Your task to perform on an android device: What's on my calendar tomorrow? Image 0: 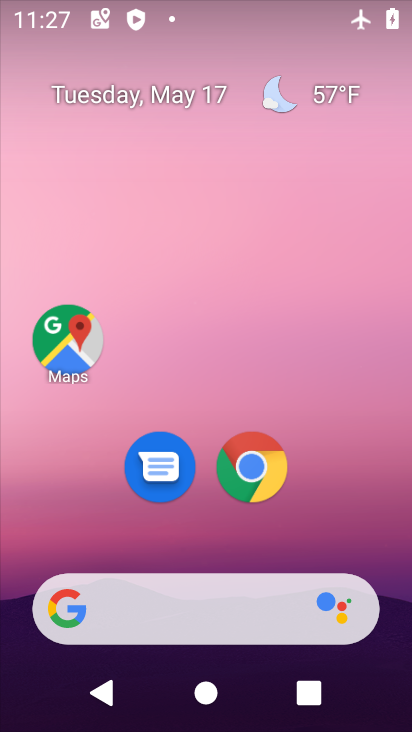
Step 0: drag from (217, 636) to (343, 155)
Your task to perform on an android device: What's on my calendar tomorrow? Image 1: 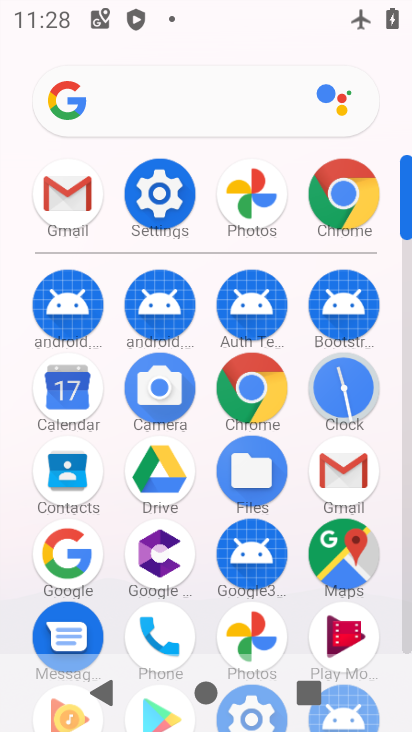
Step 1: click (63, 399)
Your task to perform on an android device: What's on my calendar tomorrow? Image 2: 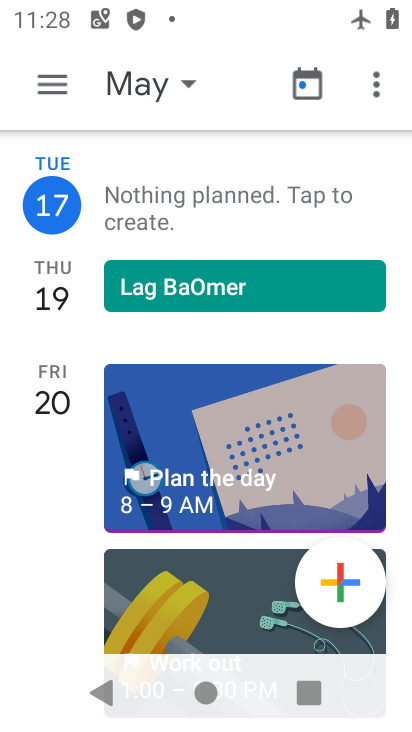
Step 2: click (68, 84)
Your task to perform on an android device: What's on my calendar tomorrow? Image 3: 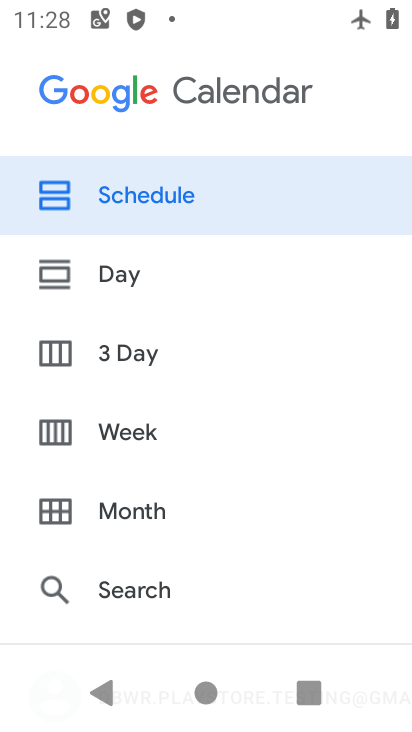
Step 3: click (115, 358)
Your task to perform on an android device: What's on my calendar tomorrow? Image 4: 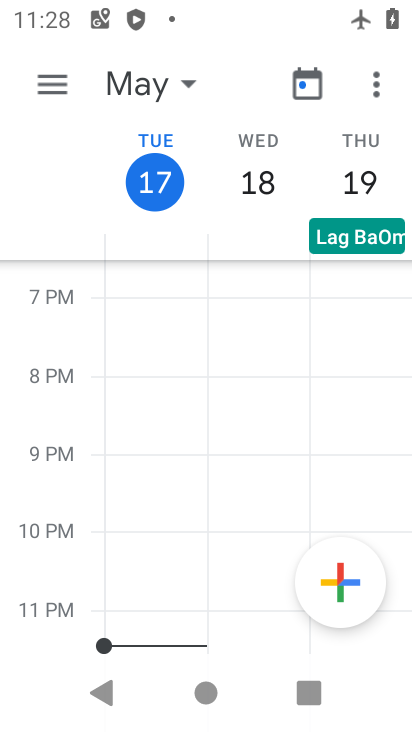
Step 4: click (255, 190)
Your task to perform on an android device: What's on my calendar tomorrow? Image 5: 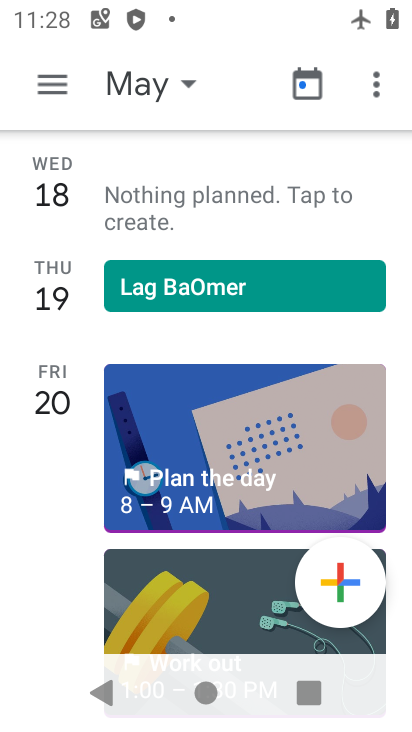
Step 5: task complete